Your task to perform on an android device: When is my next appointment? Image 0: 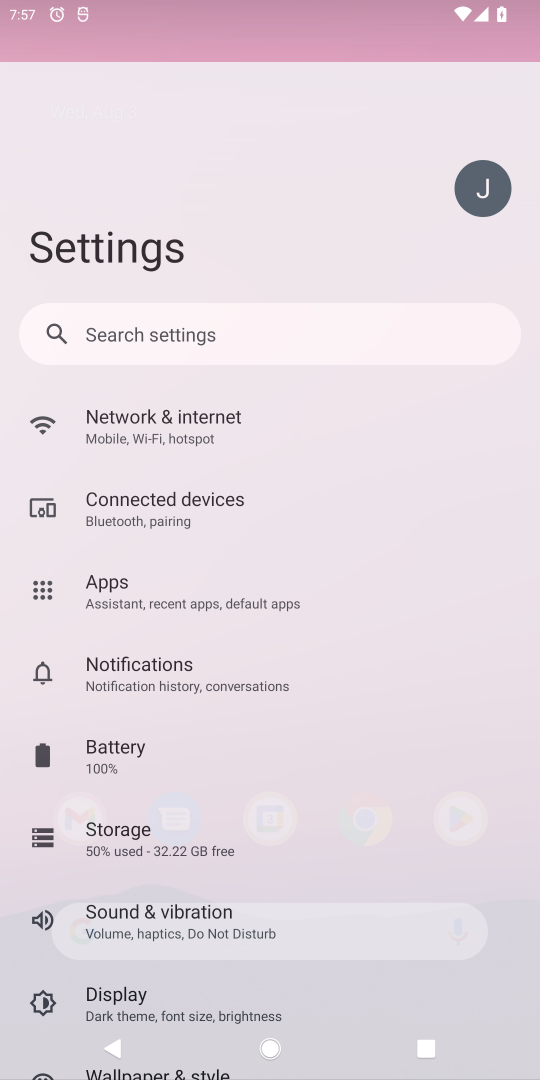
Step 0: press home button
Your task to perform on an android device: When is my next appointment? Image 1: 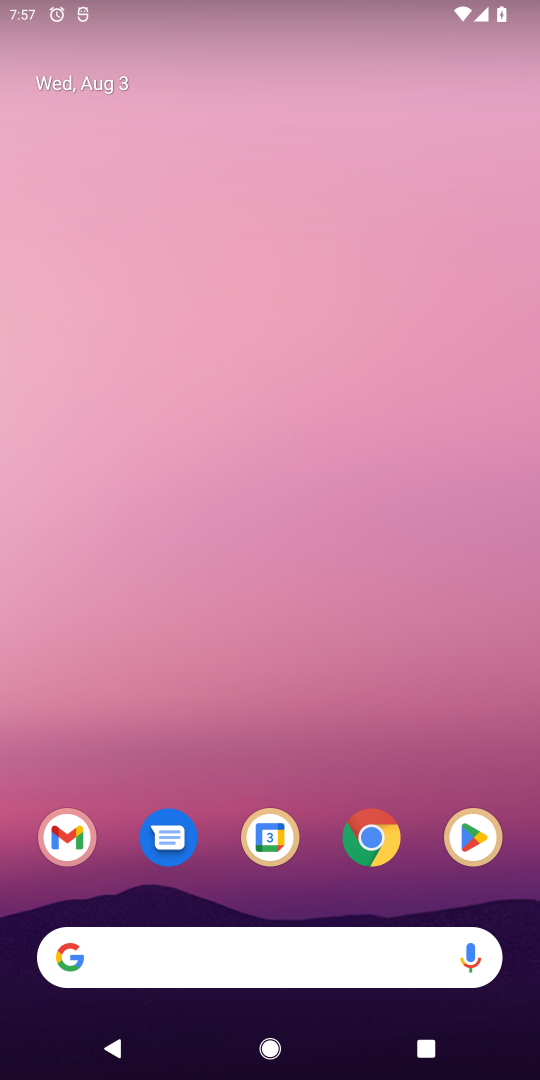
Step 1: click (273, 832)
Your task to perform on an android device: When is my next appointment? Image 2: 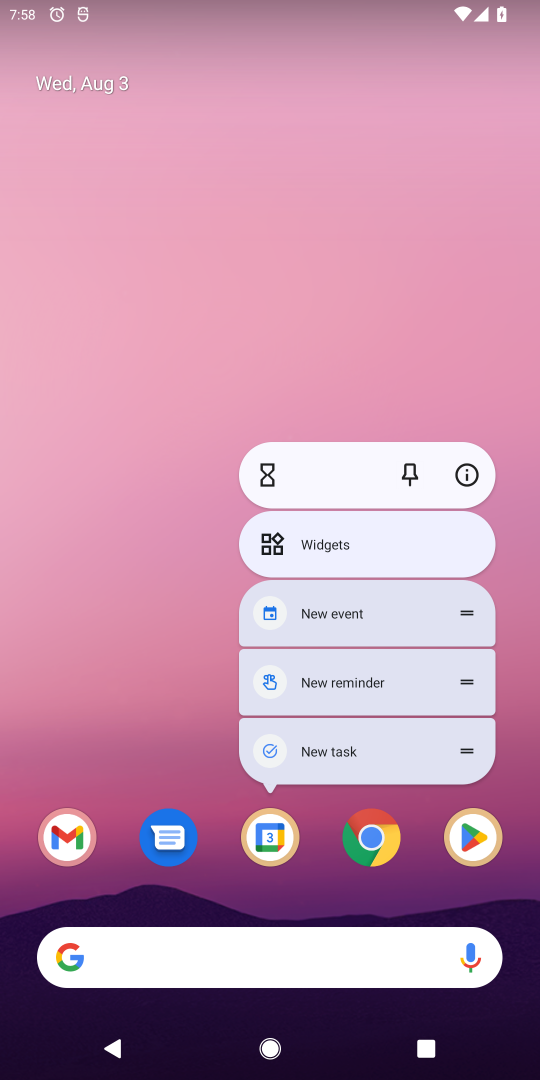
Step 2: click (280, 832)
Your task to perform on an android device: When is my next appointment? Image 3: 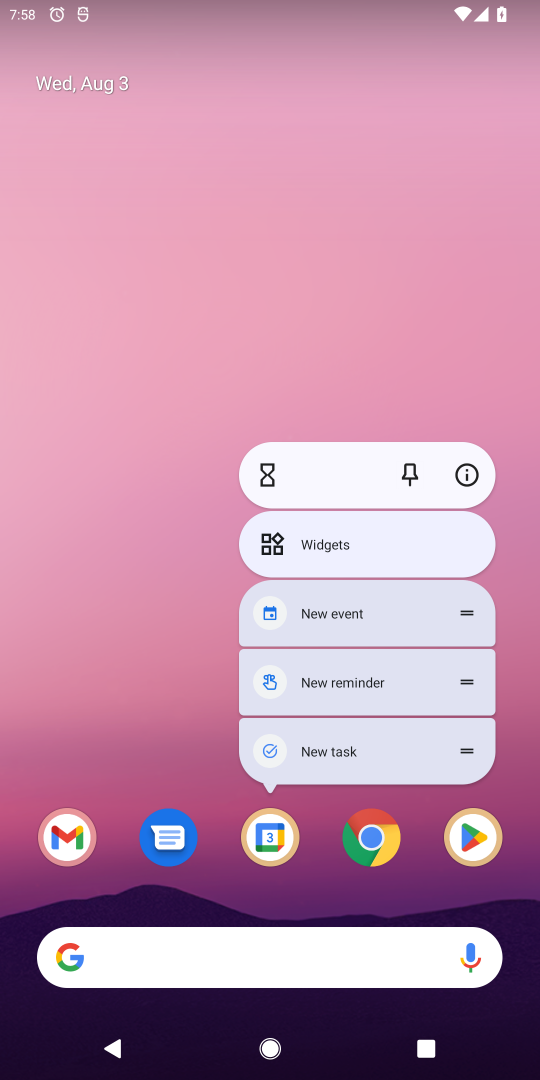
Step 3: click (278, 848)
Your task to perform on an android device: When is my next appointment? Image 4: 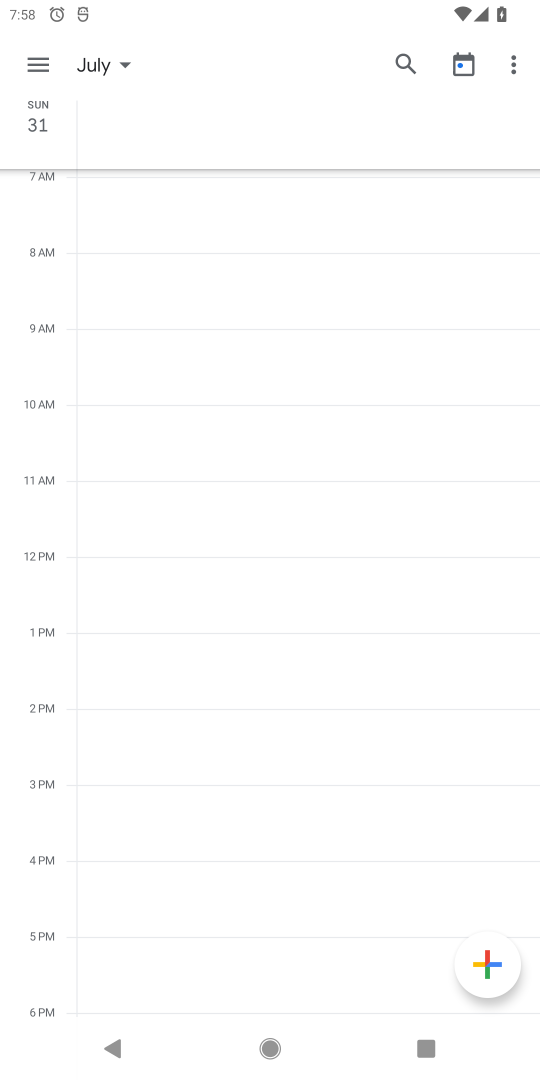
Step 4: click (41, 65)
Your task to perform on an android device: When is my next appointment? Image 5: 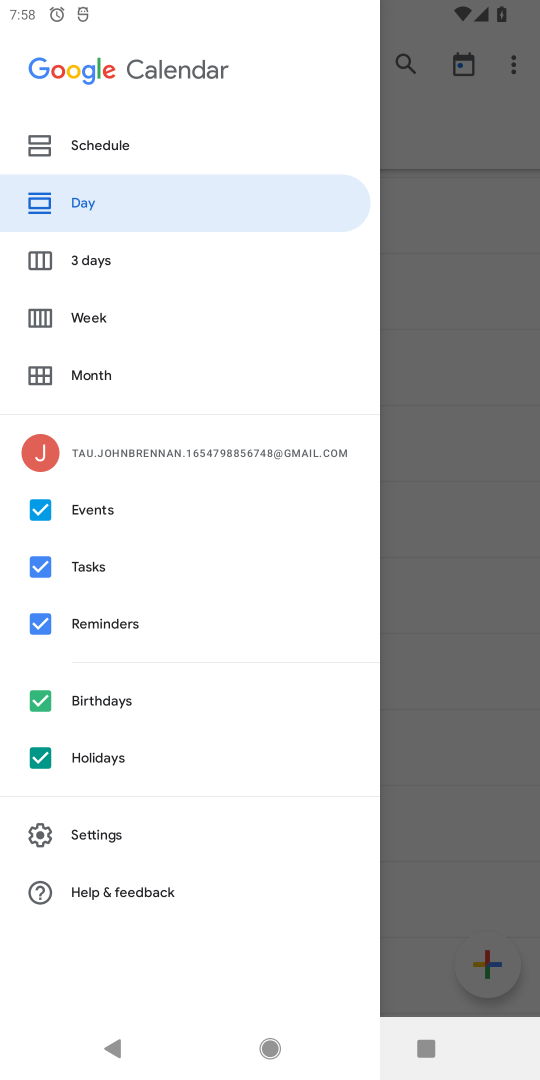
Step 5: click (87, 150)
Your task to perform on an android device: When is my next appointment? Image 6: 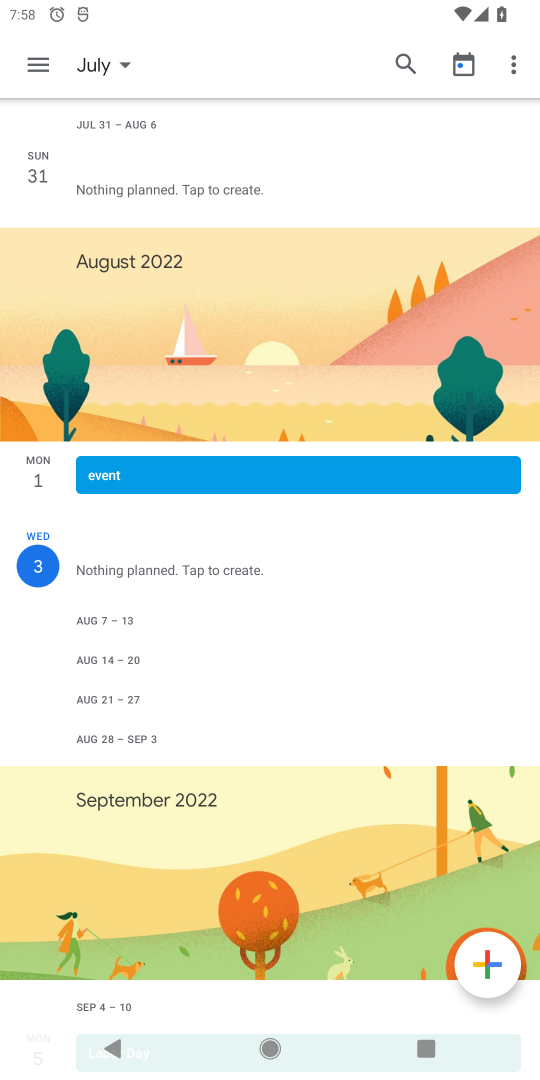
Step 6: task complete